Your task to perform on an android device: turn on airplane mode Image 0: 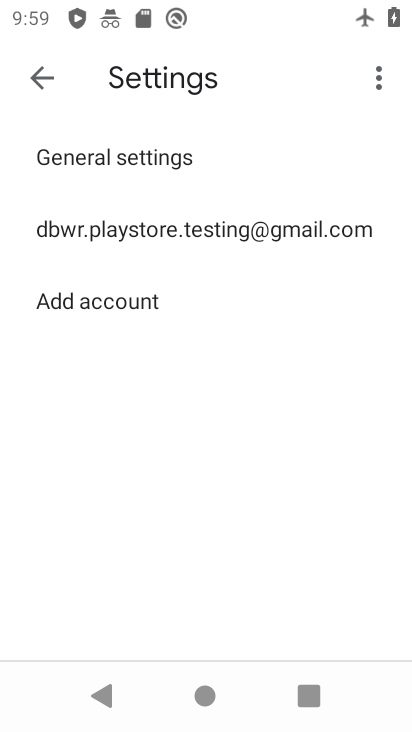
Step 0: press home button
Your task to perform on an android device: turn on airplane mode Image 1: 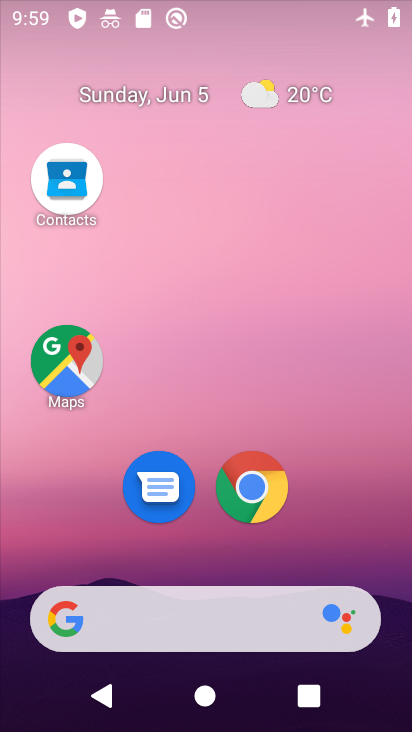
Step 1: drag from (233, 677) to (252, 545)
Your task to perform on an android device: turn on airplane mode Image 2: 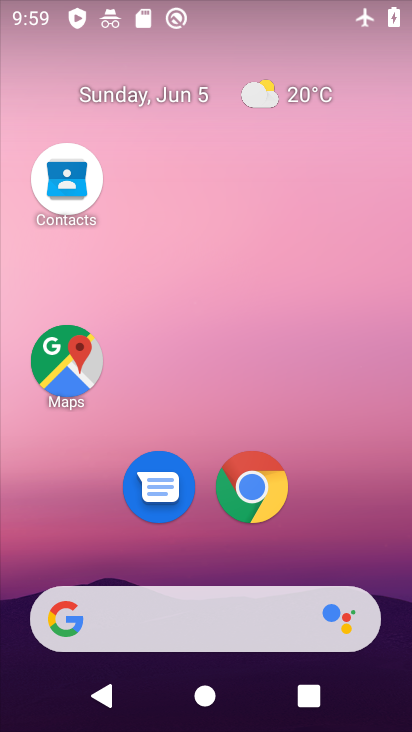
Step 2: drag from (217, 614) to (222, 432)
Your task to perform on an android device: turn on airplane mode Image 3: 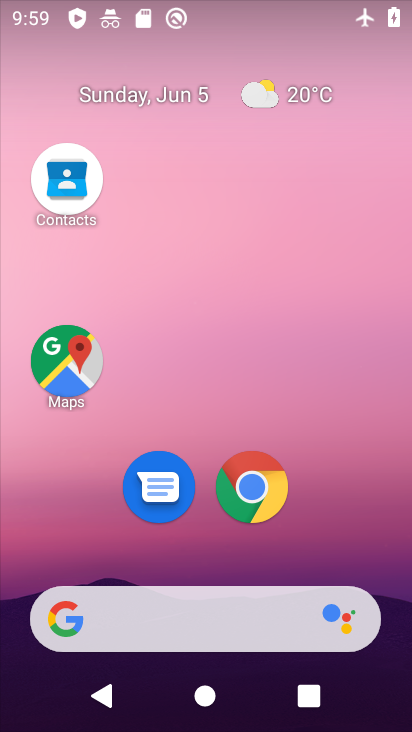
Step 3: drag from (211, 605) to (251, 397)
Your task to perform on an android device: turn on airplane mode Image 4: 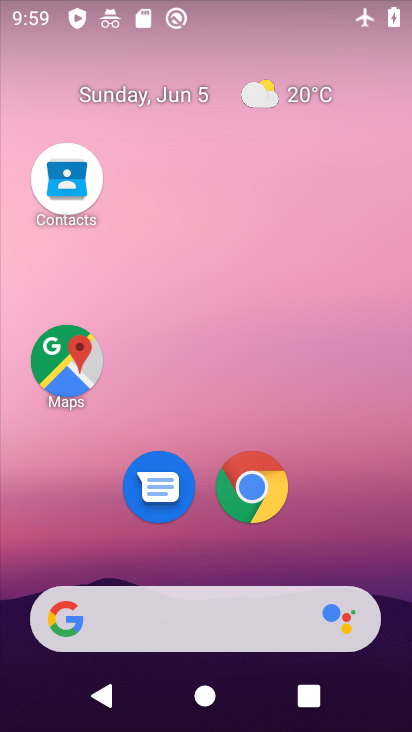
Step 4: drag from (238, 604) to (267, 270)
Your task to perform on an android device: turn on airplane mode Image 5: 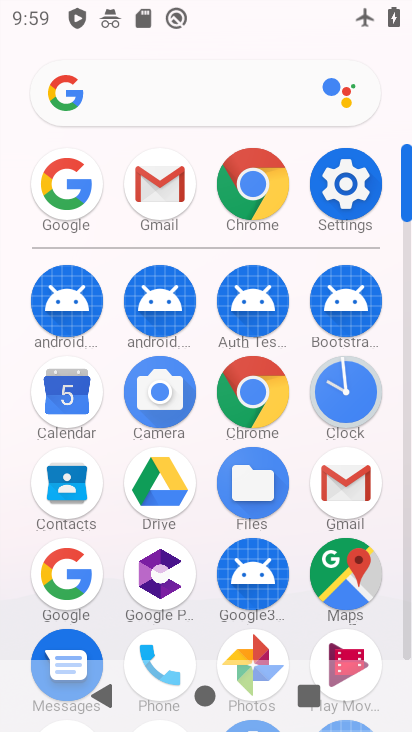
Step 5: click (364, 185)
Your task to perform on an android device: turn on airplane mode Image 6: 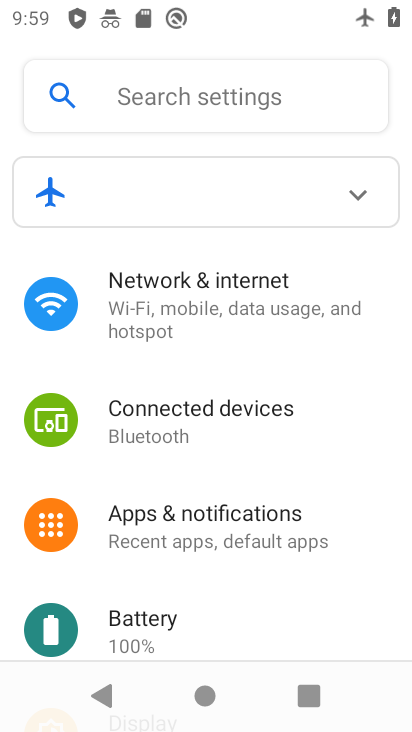
Step 6: click (251, 315)
Your task to perform on an android device: turn on airplane mode Image 7: 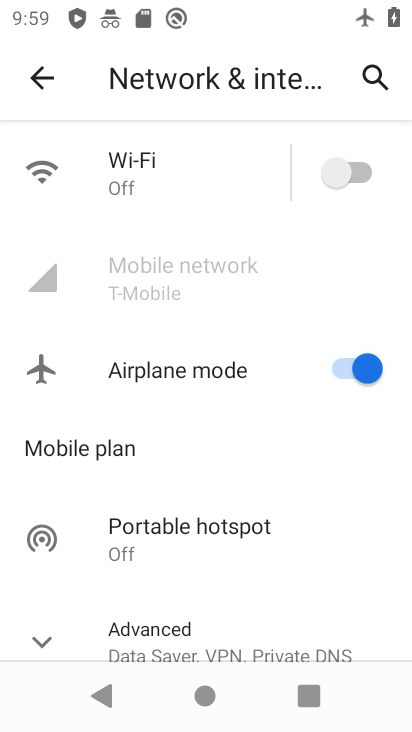
Step 7: task complete